Your task to perform on an android device: toggle airplane mode Image 0: 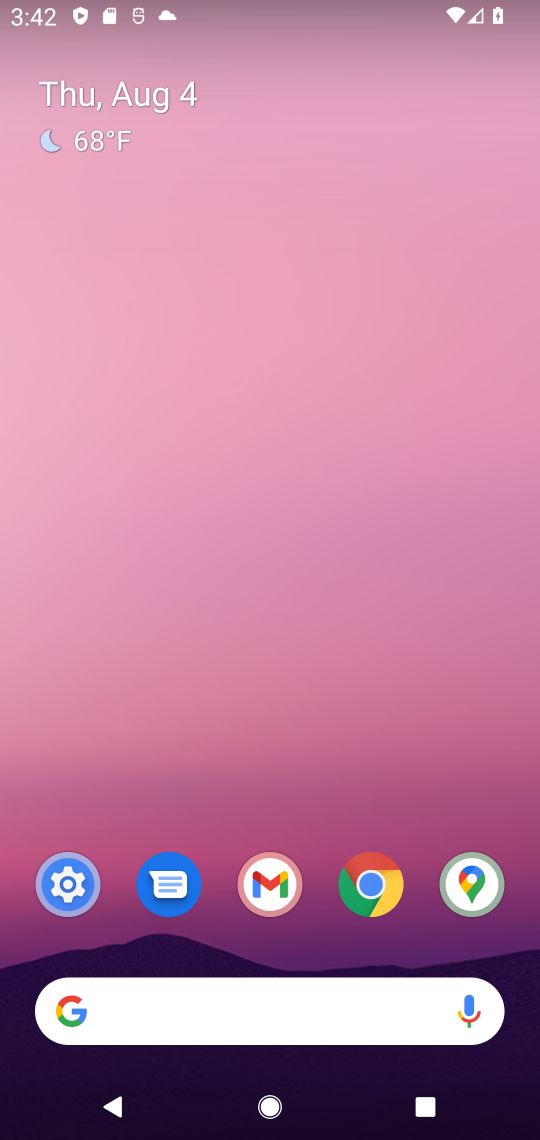
Step 0: drag from (198, 895) to (241, 176)
Your task to perform on an android device: toggle airplane mode Image 1: 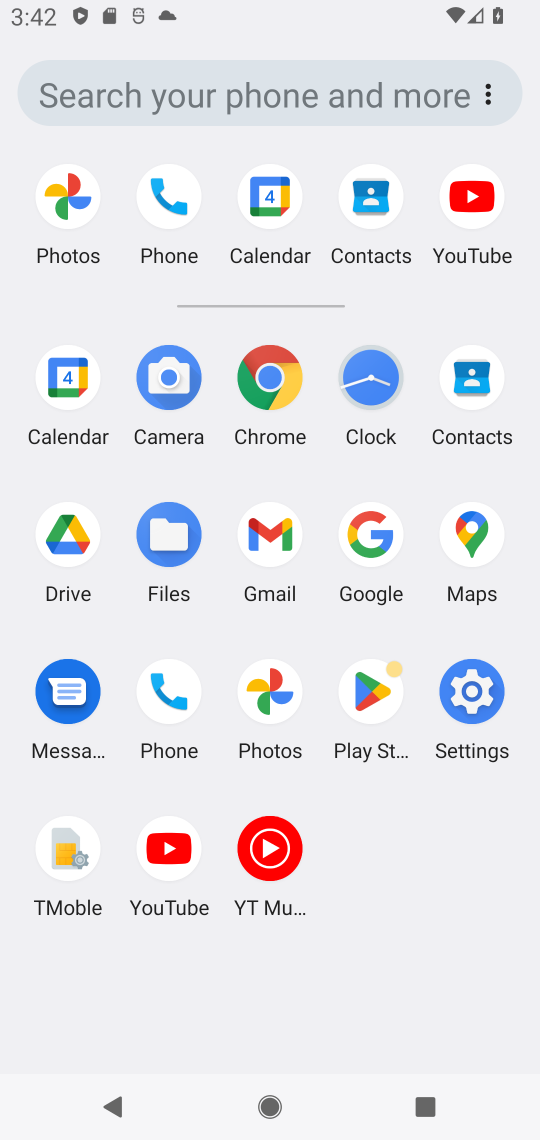
Step 1: click (476, 683)
Your task to perform on an android device: toggle airplane mode Image 2: 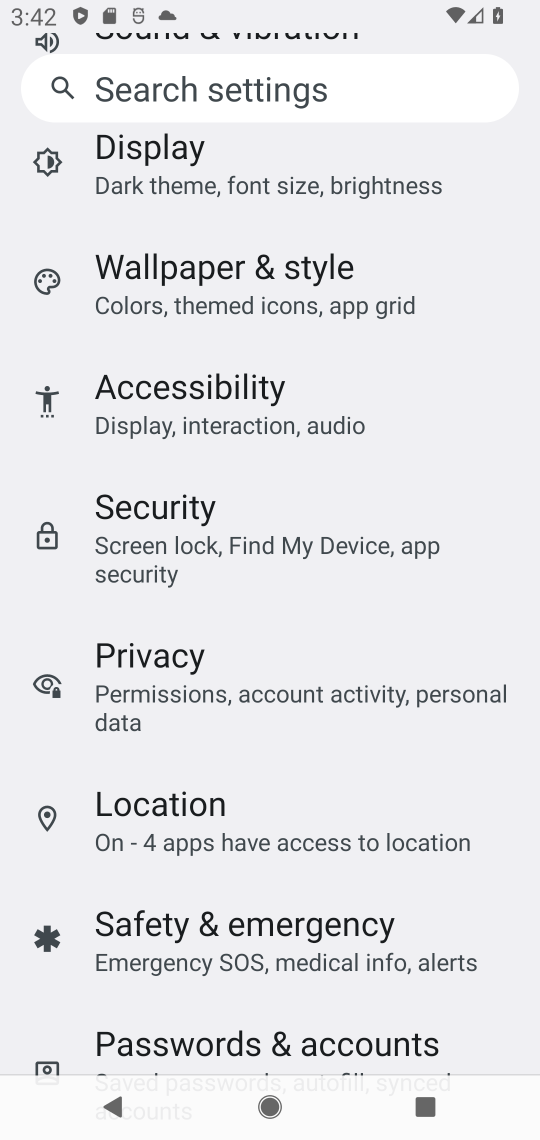
Step 2: drag from (176, 339) to (204, 1094)
Your task to perform on an android device: toggle airplane mode Image 3: 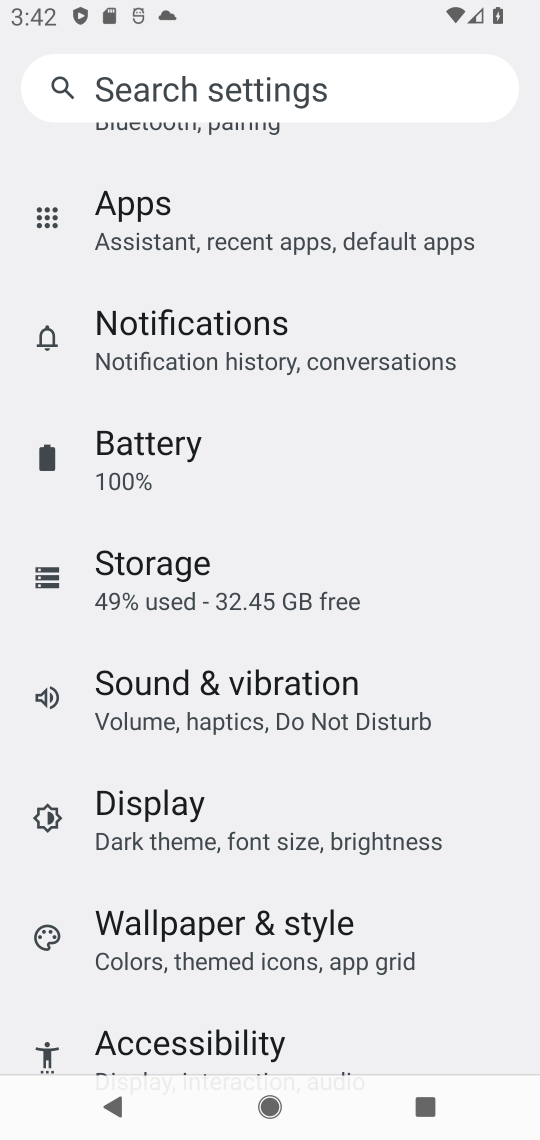
Step 3: drag from (133, 236) to (145, 989)
Your task to perform on an android device: toggle airplane mode Image 4: 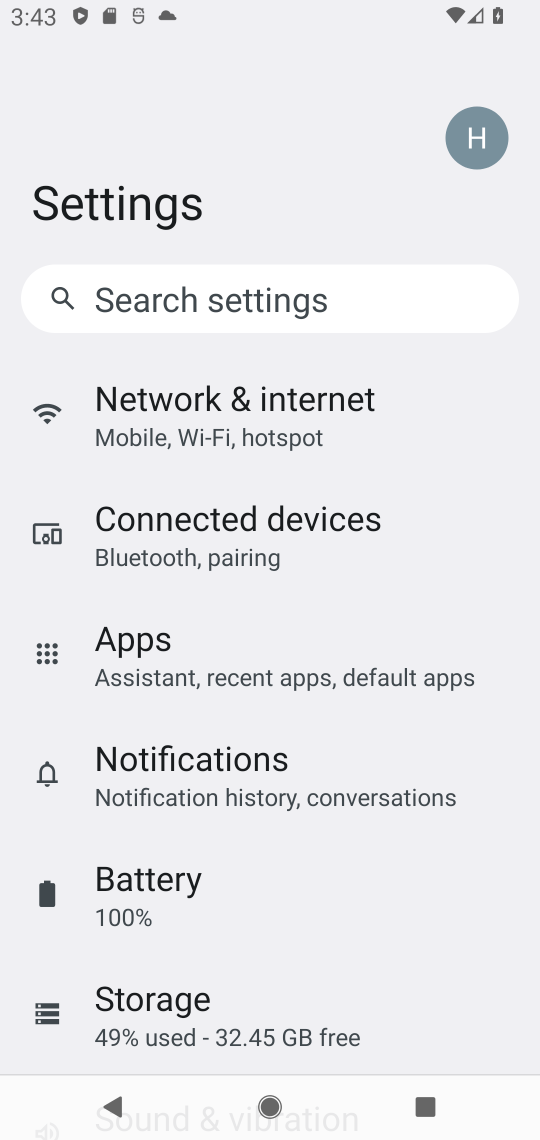
Step 4: click (225, 377)
Your task to perform on an android device: toggle airplane mode Image 5: 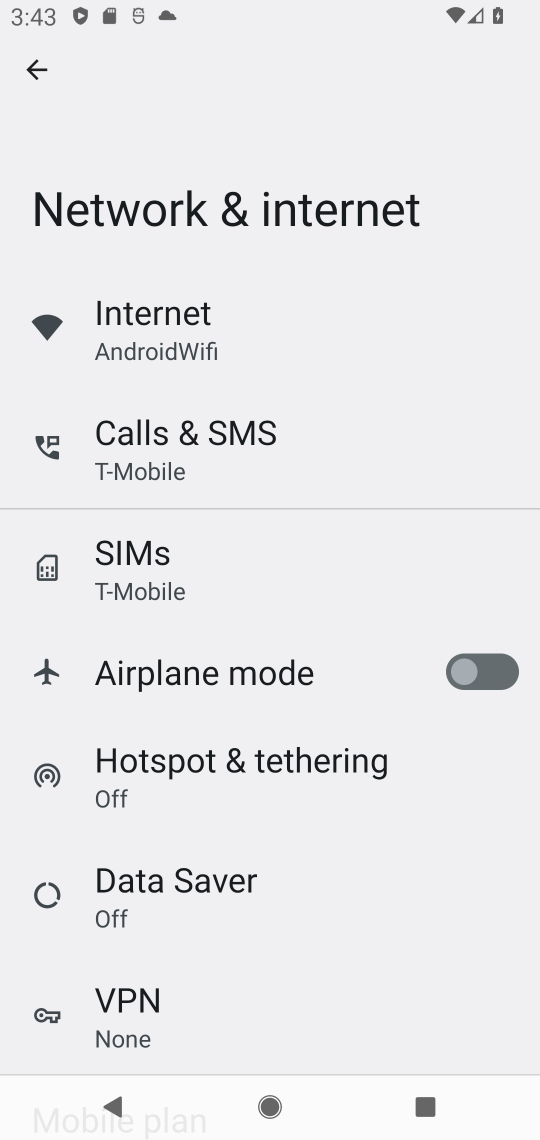
Step 5: click (477, 668)
Your task to perform on an android device: toggle airplane mode Image 6: 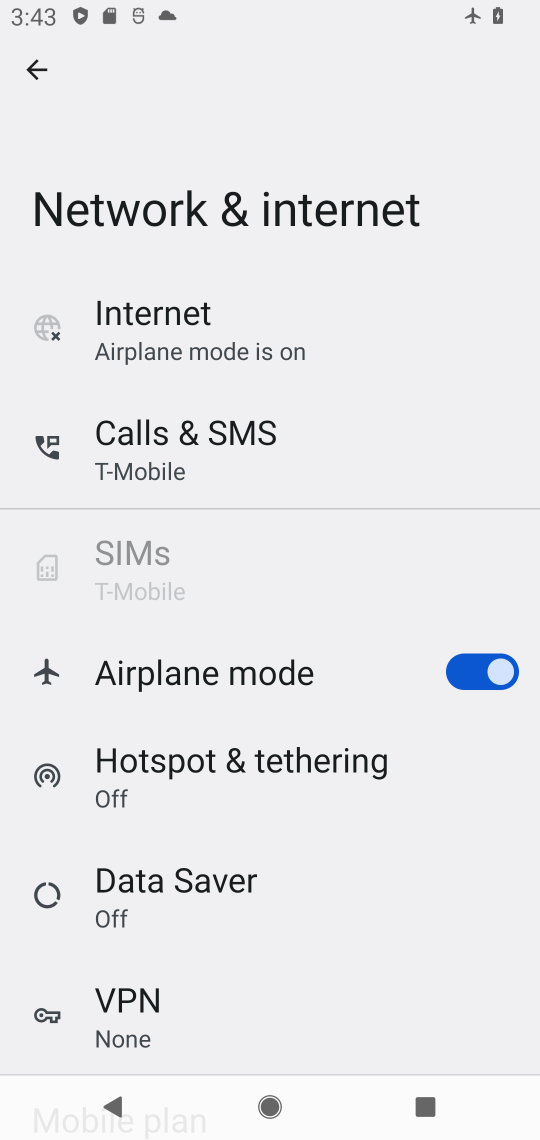
Step 6: task complete